Your task to perform on an android device: Do I have any events tomorrow? Image 0: 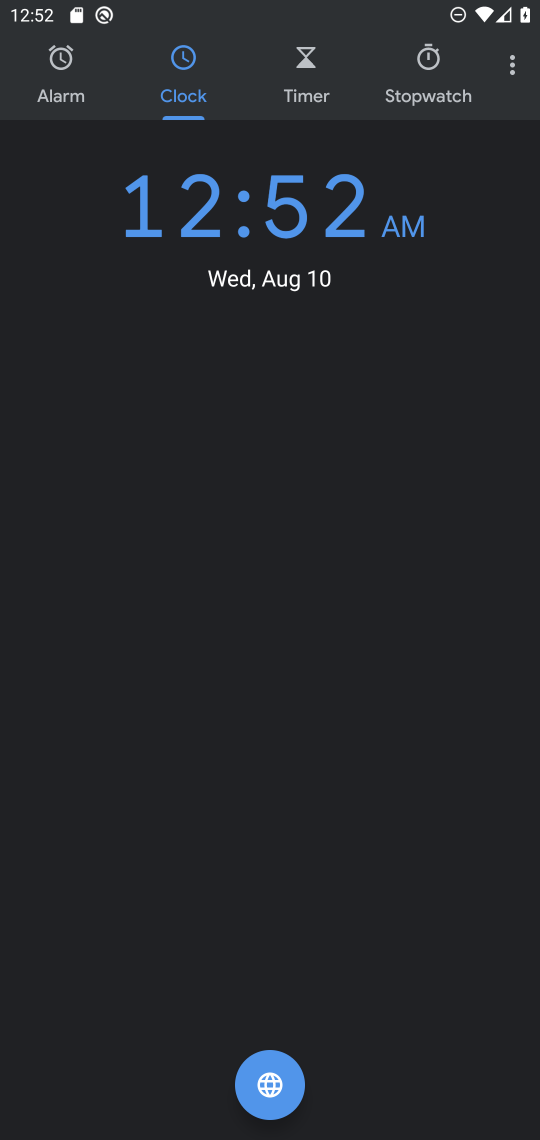
Step 0: press home button
Your task to perform on an android device: Do I have any events tomorrow? Image 1: 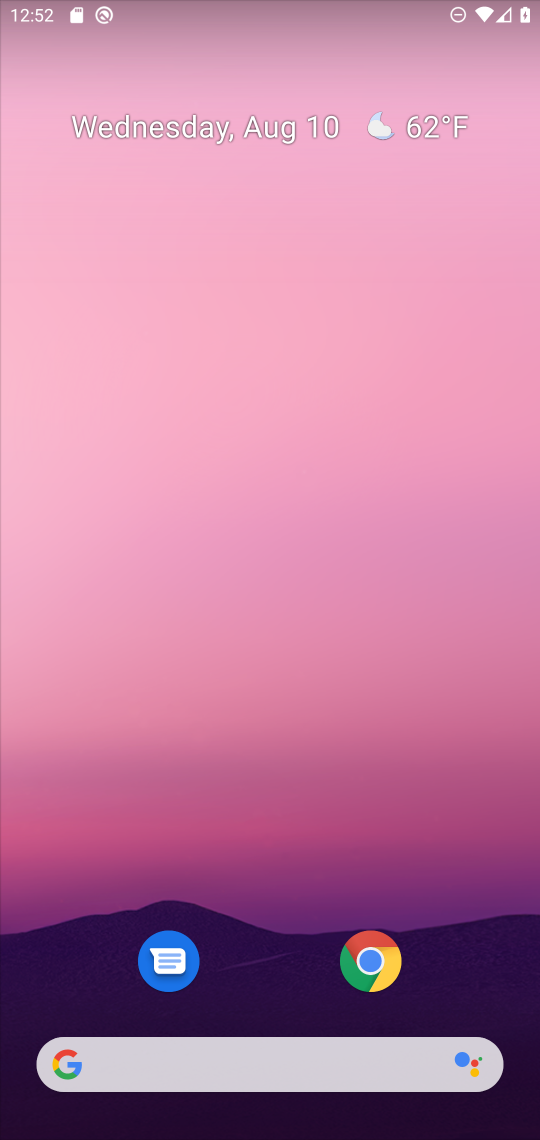
Step 1: drag from (284, 958) to (259, 168)
Your task to perform on an android device: Do I have any events tomorrow? Image 2: 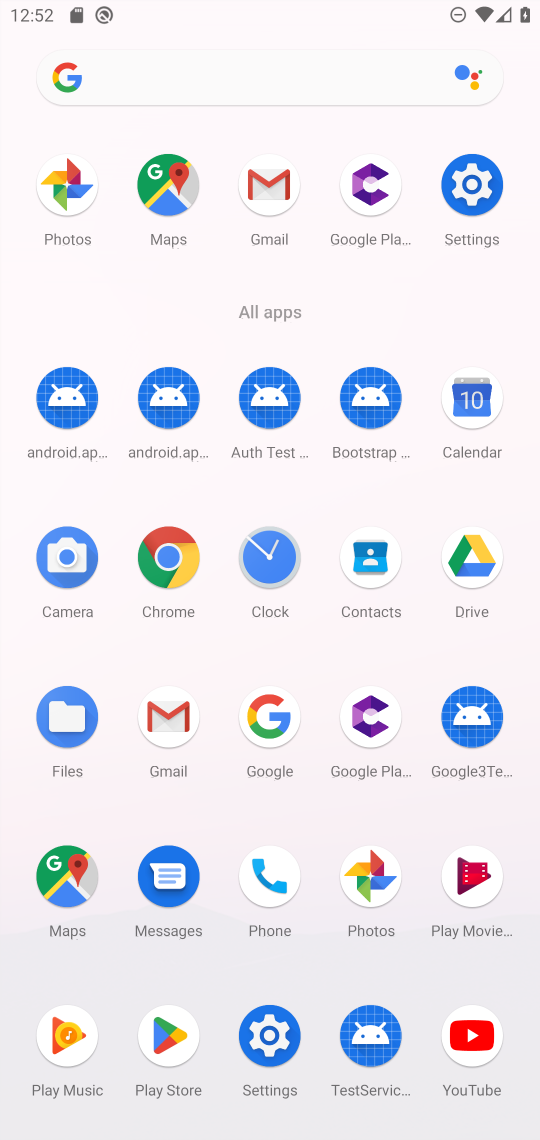
Step 2: click (477, 394)
Your task to perform on an android device: Do I have any events tomorrow? Image 3: 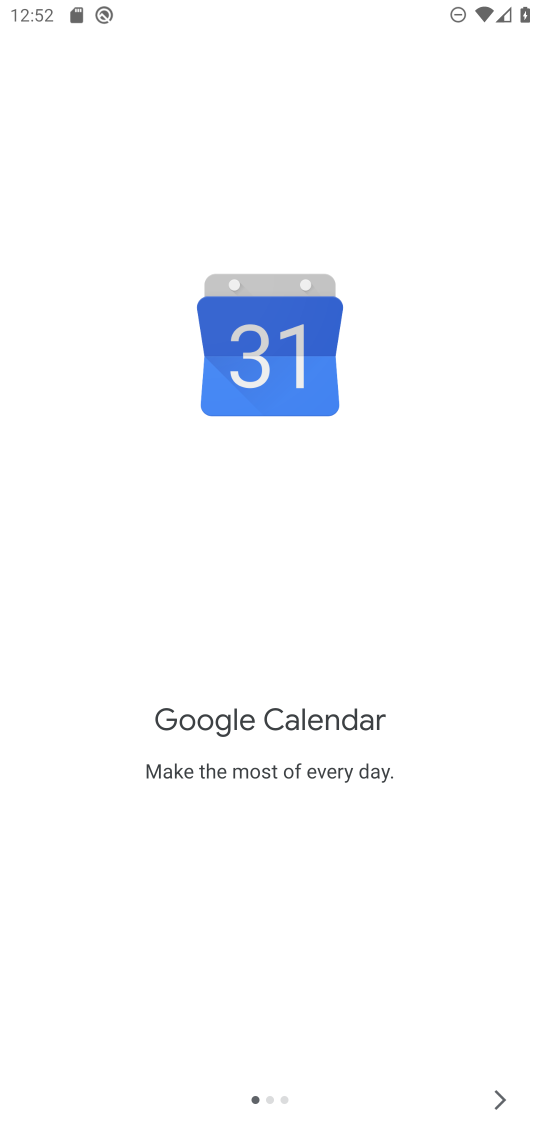
Step 3: click (502, 1104)
Your task to perform on an android device: Do I have any events tomorrow? Image 4: 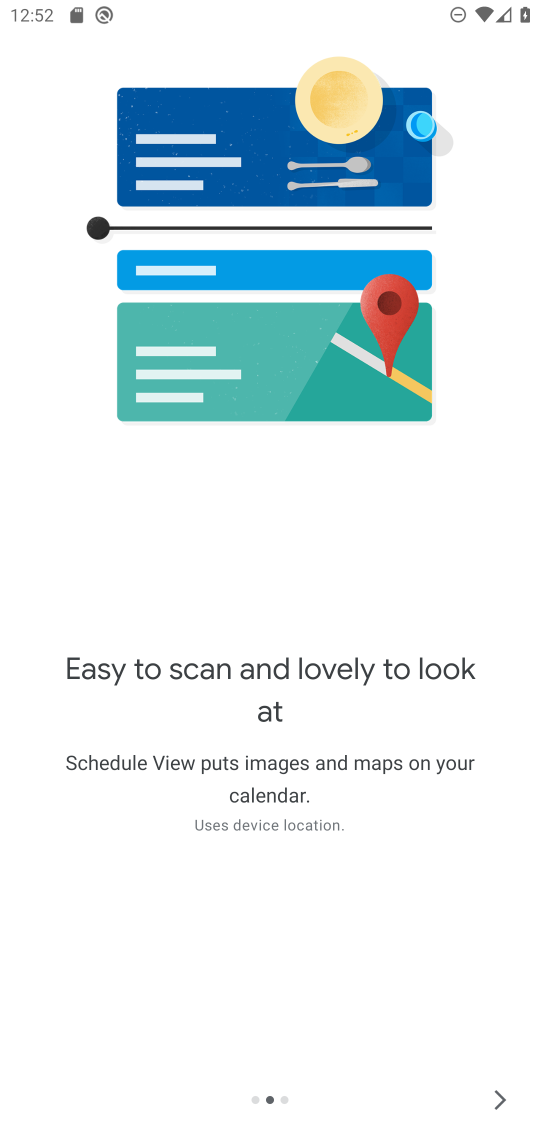
Step 4: click (499, 1097)
Your task to perform on an android device: Do I have any events tomorrow? Image 5: 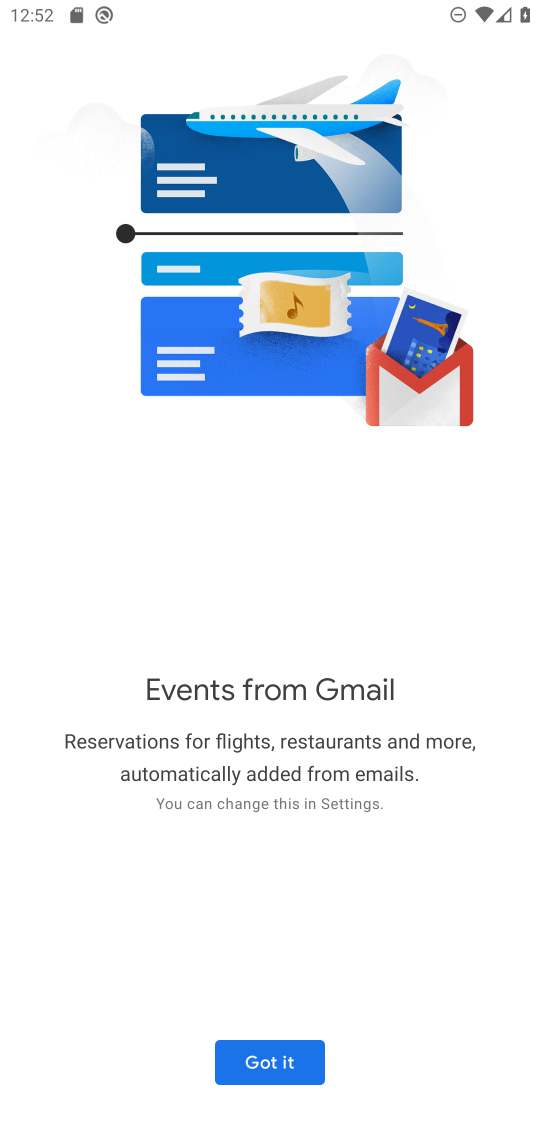
Step 5: click (280, 1067)
Your task to perform on an android device: Do I have any events tomorrow? Image 6: 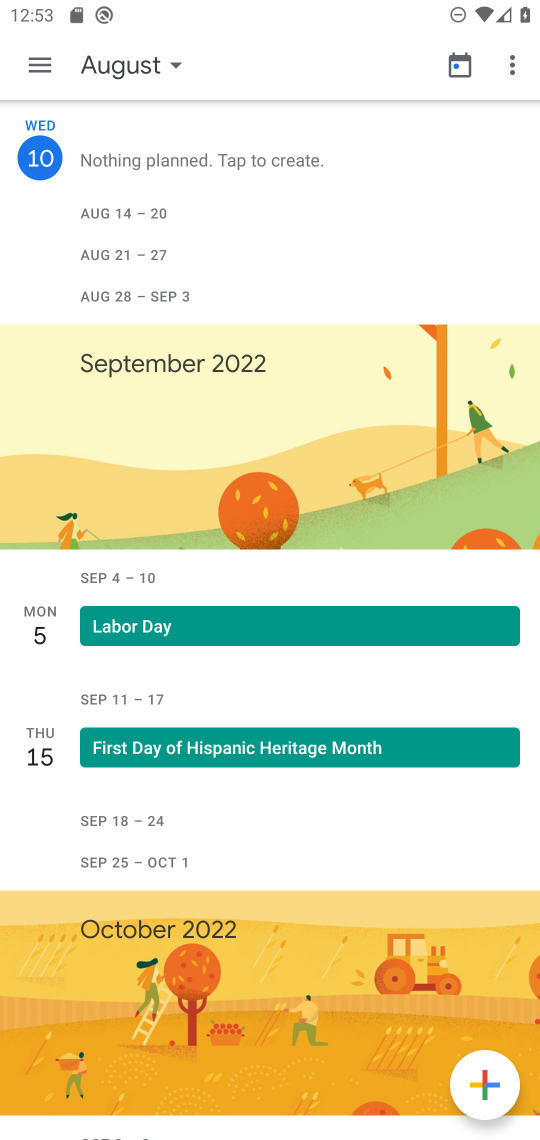
Step 6: click (42, 64)
Your task to perform on an android device: Do I have any events tomorrow? Image 7: 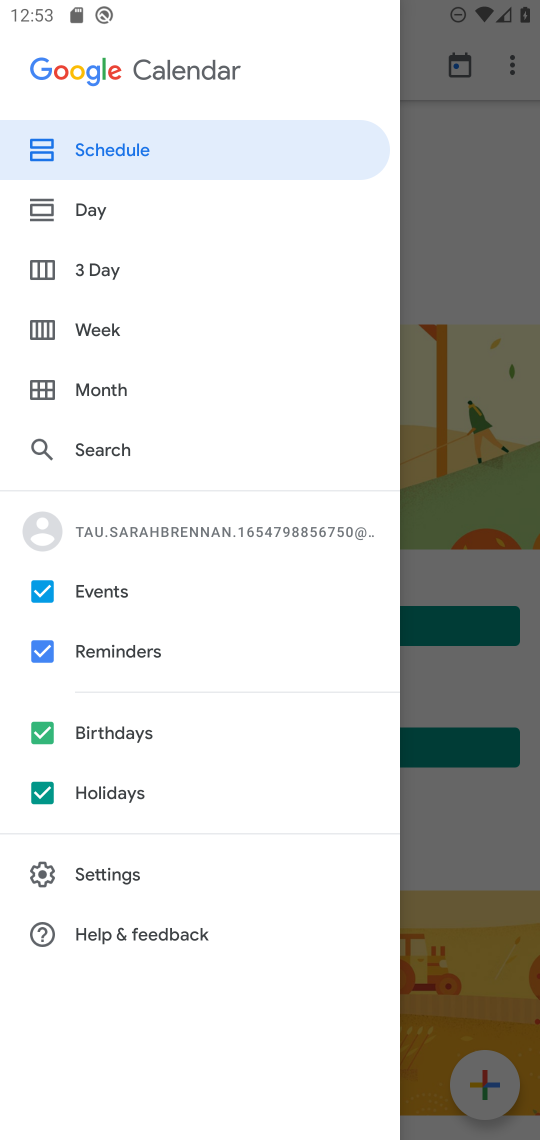
Step 7: click (90, 197)
Your task to perform on an android device: Do I have any events tomorrow? Image 8: 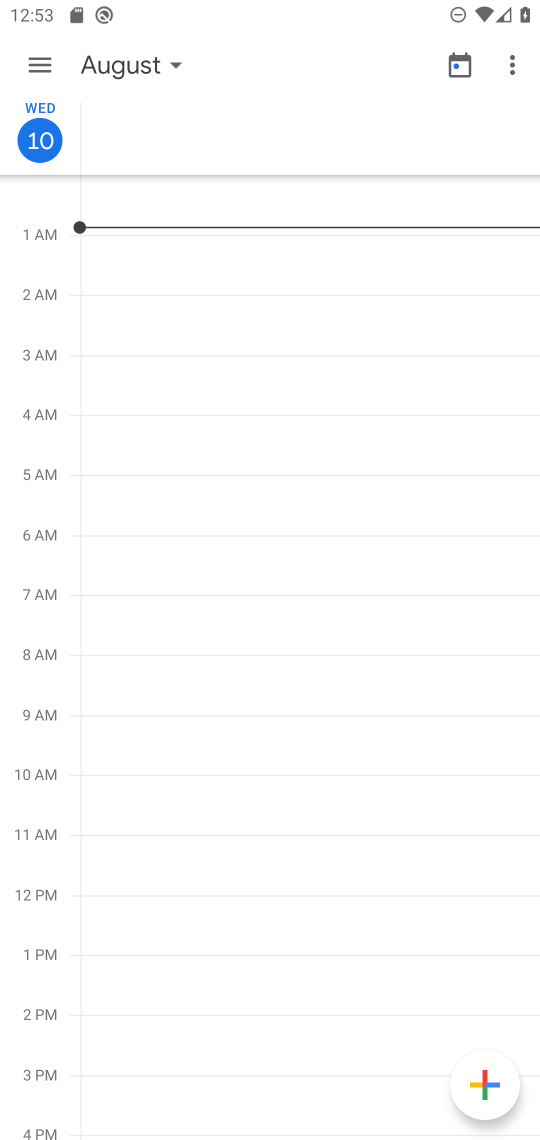
Step 8: click (170, 55)
Your task to perform on an android device: Do I have any events tomorrow? Image 9: 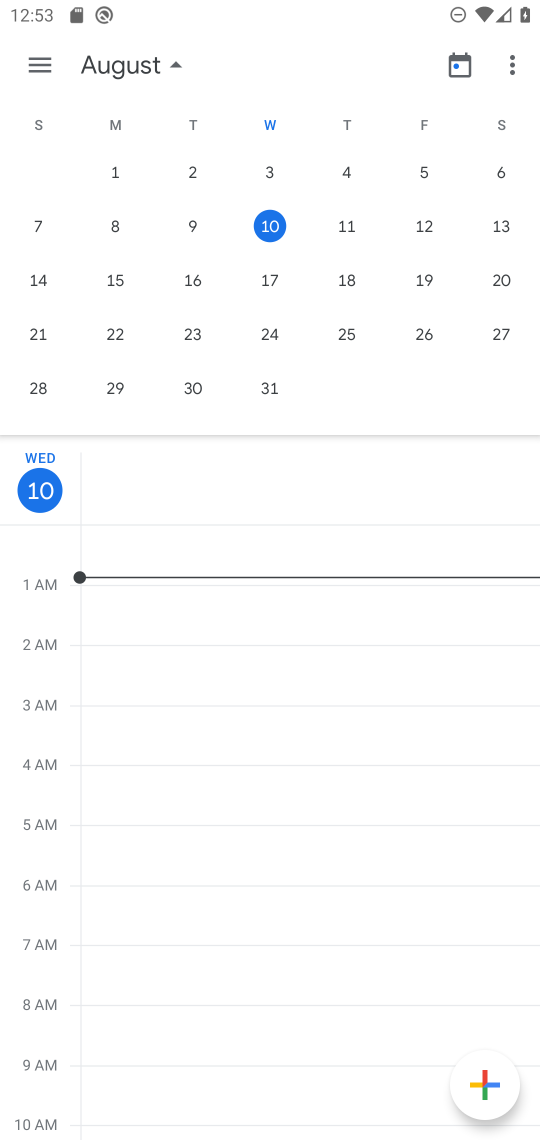
Step 9: click (347, 231)
Your task to perform on an android device: Do I have any events tomorrow? Image 10: 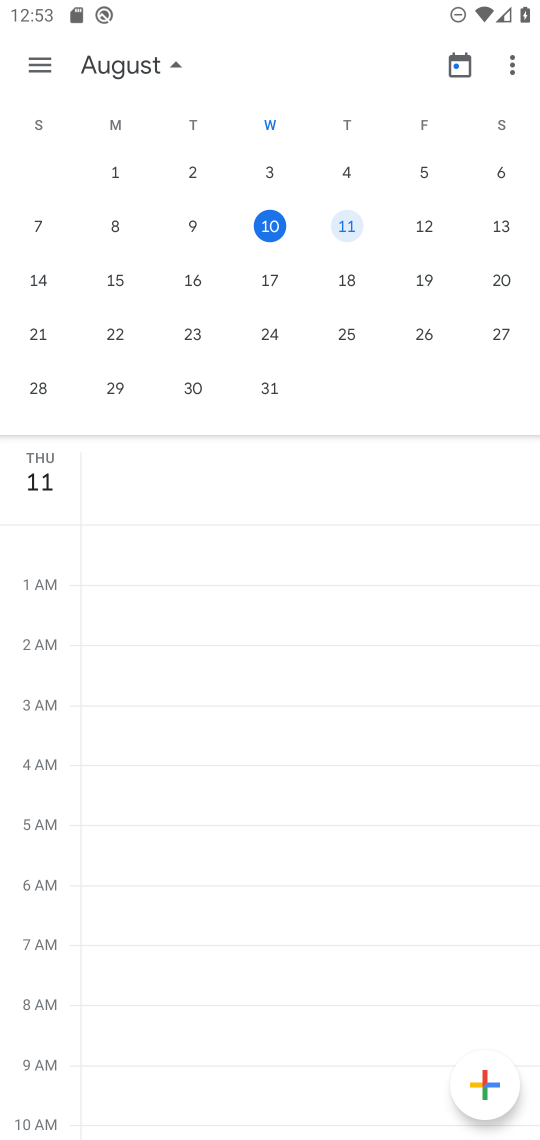
Step 10: task complete